Your task to perform on an android device: move an email to a new category in the gmail app Image 0: 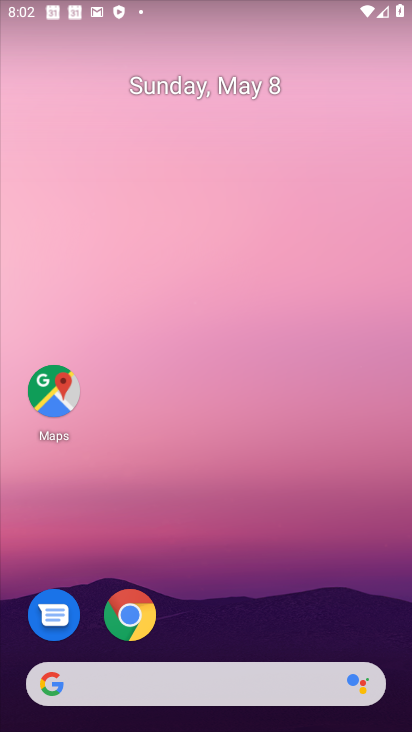
Step 0: drag from (220, 621) to (238, 195)
Your task to perform on an android device: move an email to a new category in the gmail app Image 1: 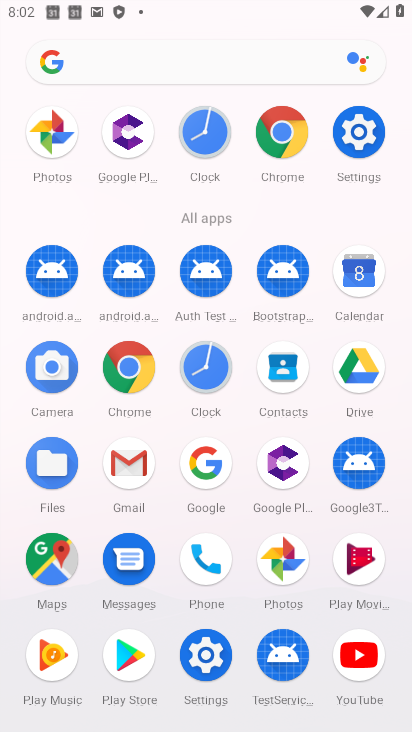
Step 1: click (130, 439)
Your task to perform on an android device: move an email to a new category in the gmail app Image 2: 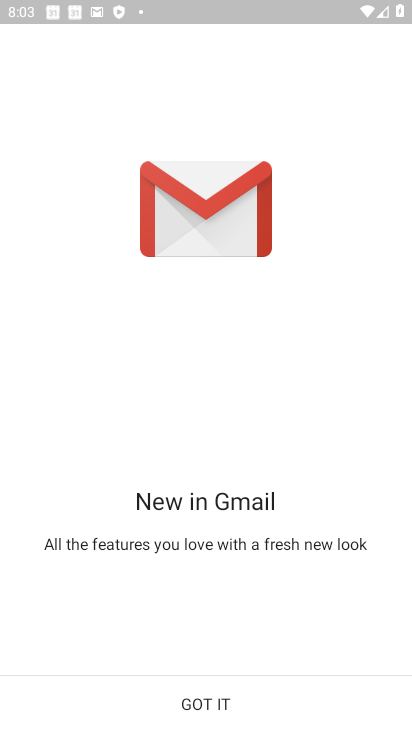
Step 2: click (183, 691)
Your task to perform on an android device: move an email to a new category in the gmail app Image 3: 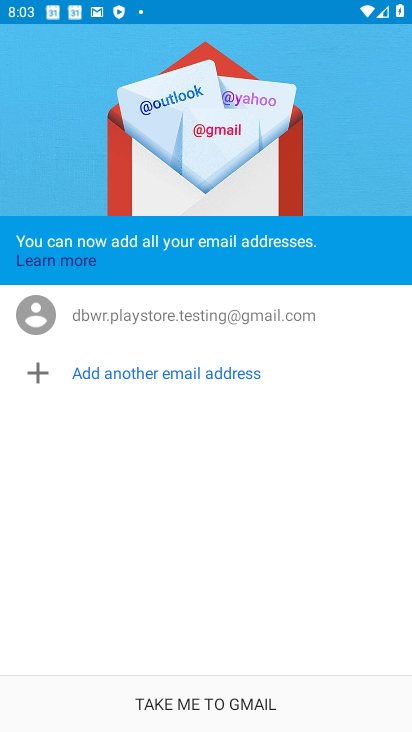
Step 3: click (183, 691)
Your task to perform on an android device: move an email to a new category in the gmail app Image 4: 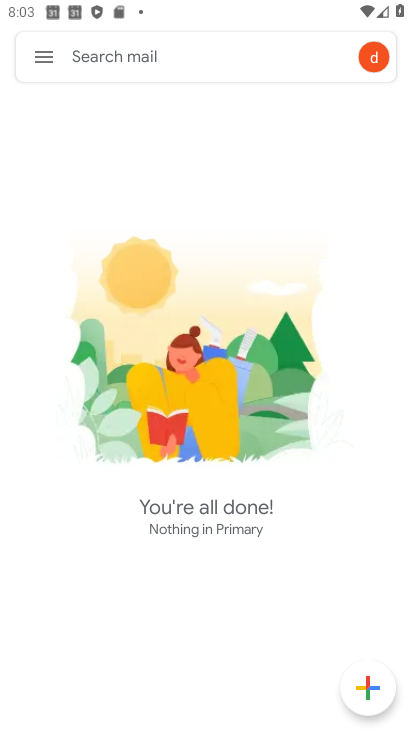
Step 4: click (41, 69)
Your task to perform on an android device: move an email to a new category in the gmail app Image 5: 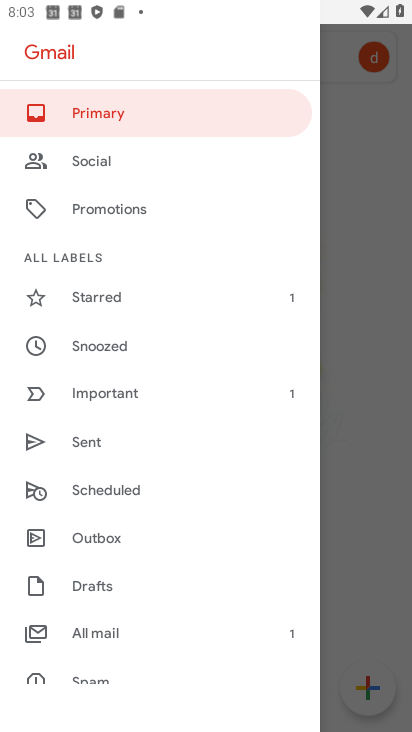
Step 5: click (162, 649)
Your task to perform on an android device: move an email to a new category in the gmail app Image 6: 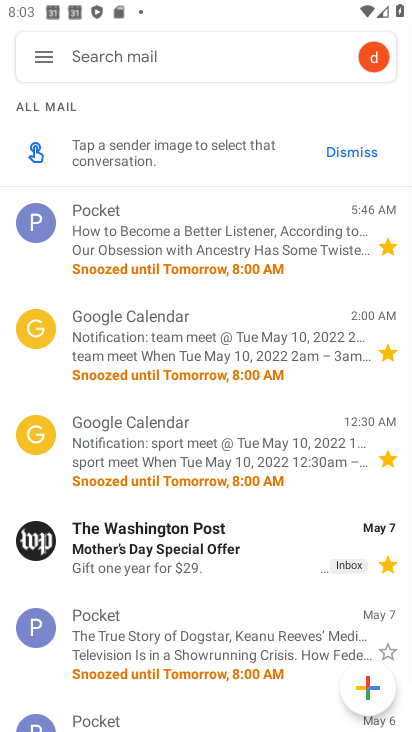
Step 6: click (213, 345)
Your task to perform on an android device: move an email to a new category in the gmail app Image 7: 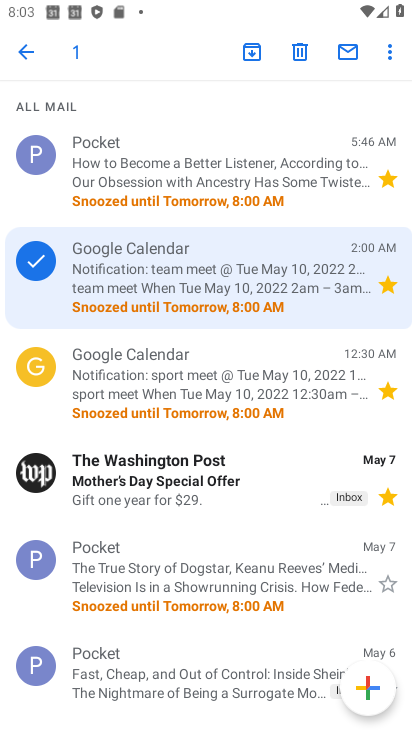
Step 7: click (384, 53)
Your task to perform on an android device: move an email to a new category in the gmail app Image 8: 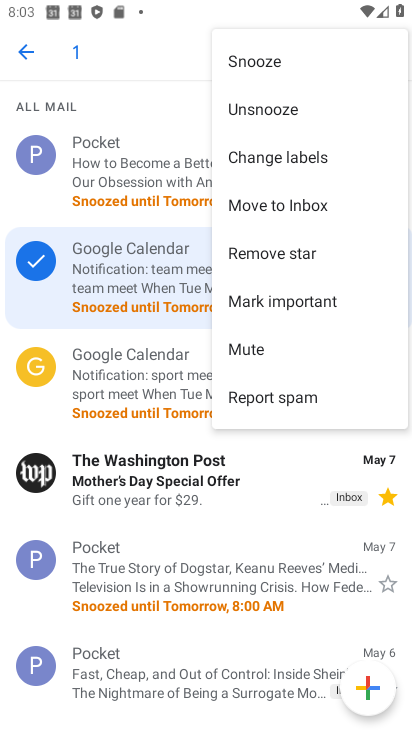
Step 8: click (317, 211)
Your task to perform on an android device: move an email to a new category in the gmail app Image 9: 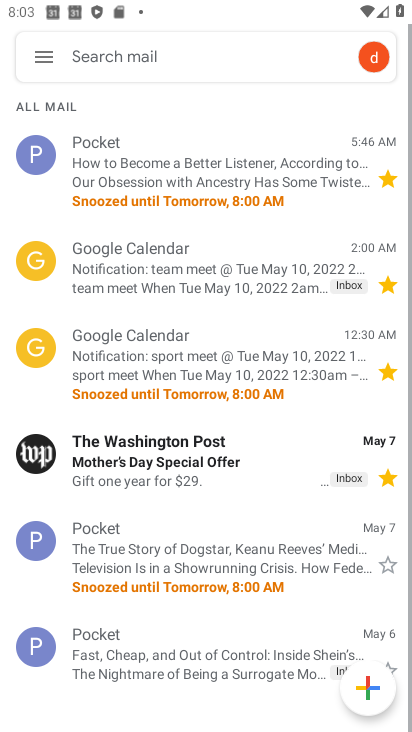
Step 9: task complete